Your task to perform on an android device: What is the news today? Image 0: 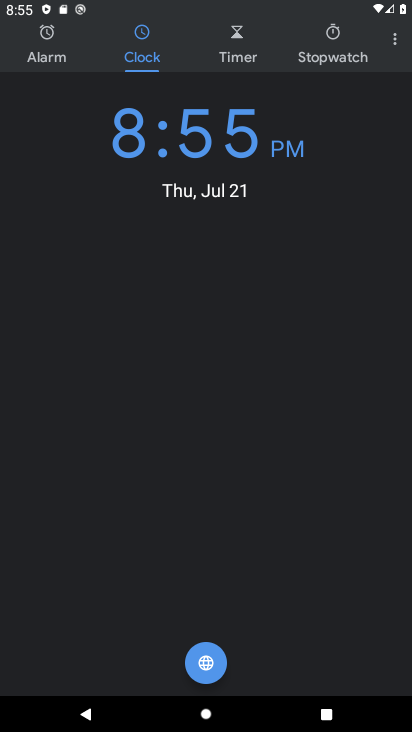
Step 0: press home button
Your task to perform on an android device: What is the news today? Image 1: 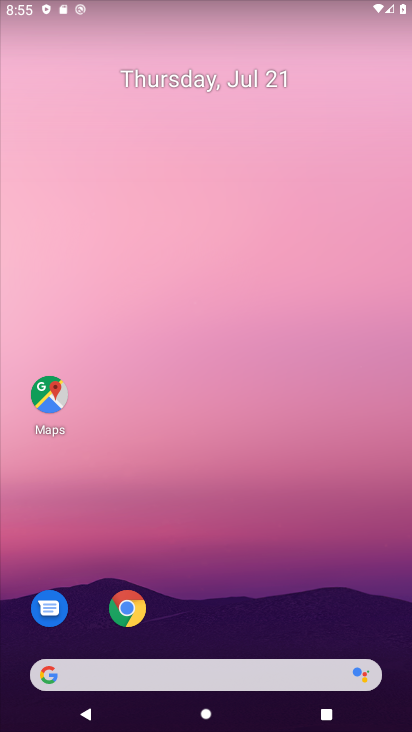
Step 1: drag from (228, 634) to (227, 122)
Your task to perform on an android device: What is the news today? Image 2: 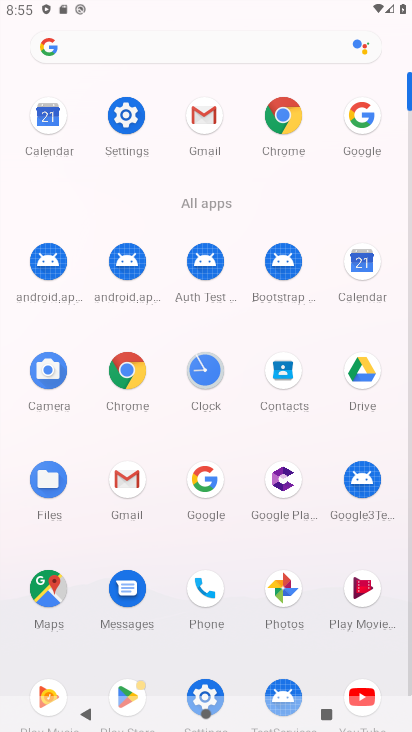
Step 2: click (279, 119)
Your task to perform on an android device: What is the news today? Image 3: 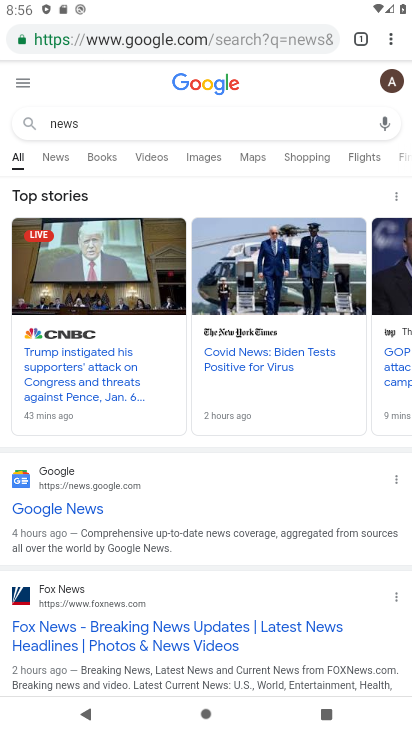
Step 3: click (303, 135)
Your task to perform on an android device: What is the news today? Image 4: 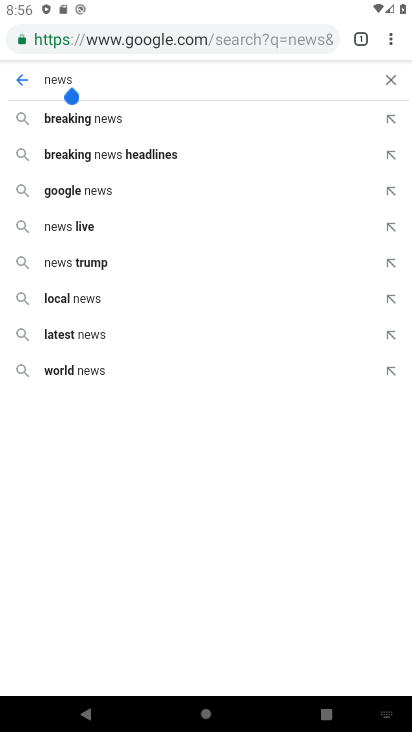
Step 4: click (387, 80)
Your task to perform on an android device: What is the news today? Image 5: 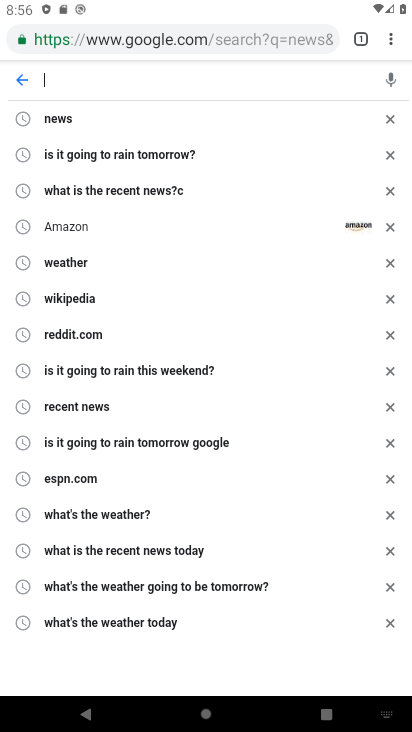
Step 5: type "What is the news today?"
Your task to perform on an android device: What is the news today? Image 6: 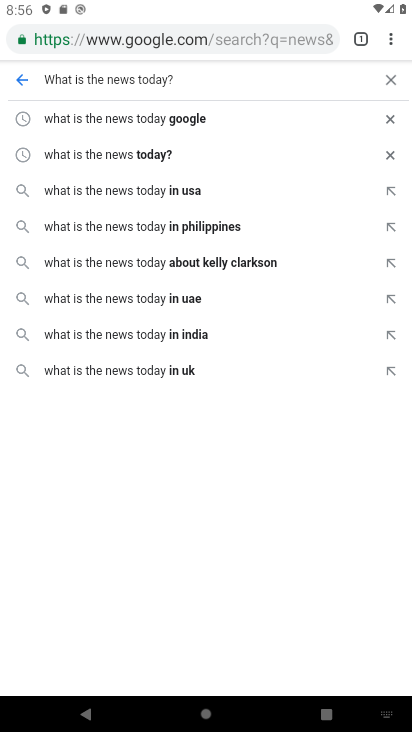
Step 6: click (179, 160)
Your task to perform on an android device: What is the news today? Image 7: 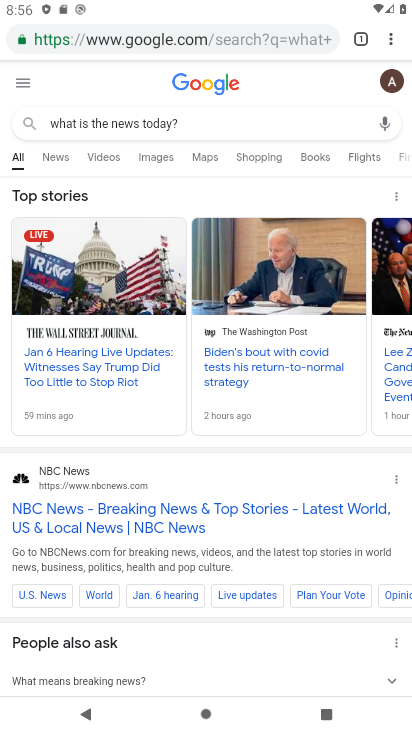
Step 7: task complete